Your task to perform on an android device: check storage Image 0: 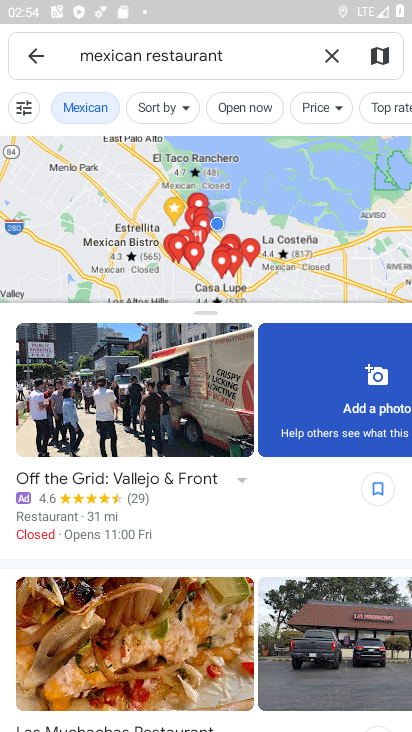
Step 0: press home button
Your task to perform on an android device: check storage Image 1: 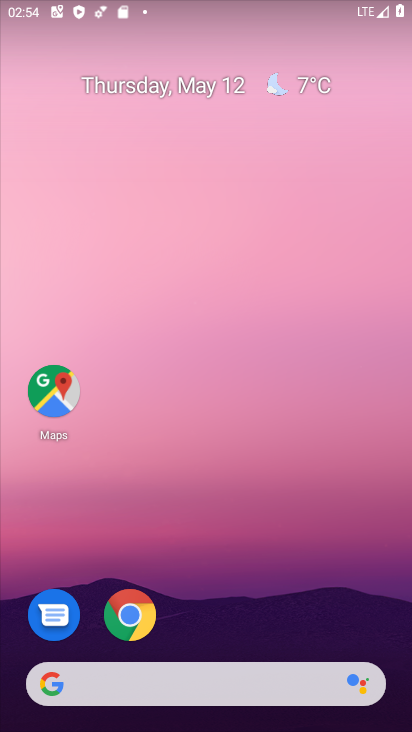
Step 1: drag from (179, 671) to (153, 203)
Your task to perform on an android device: check storage Image 2: 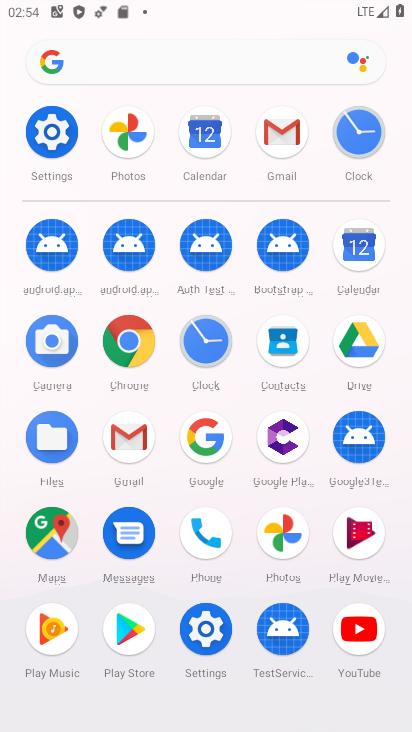
Step 2: click (207, 625)
Your task to perform on an android device: check storage Image 3: 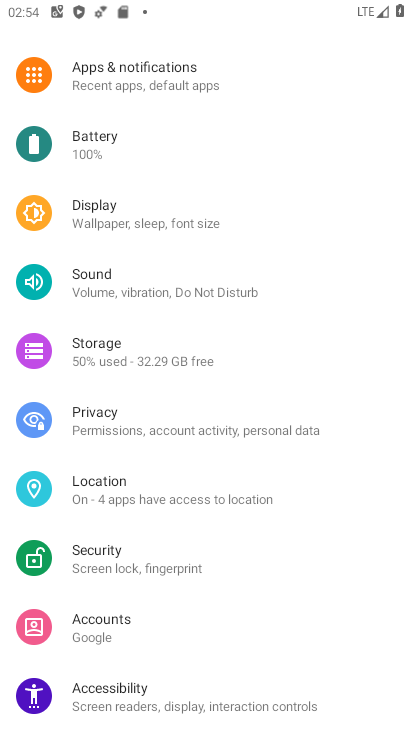
Step 3: click (106, 356)
Your task to perform on an android device: check storage Image 4: 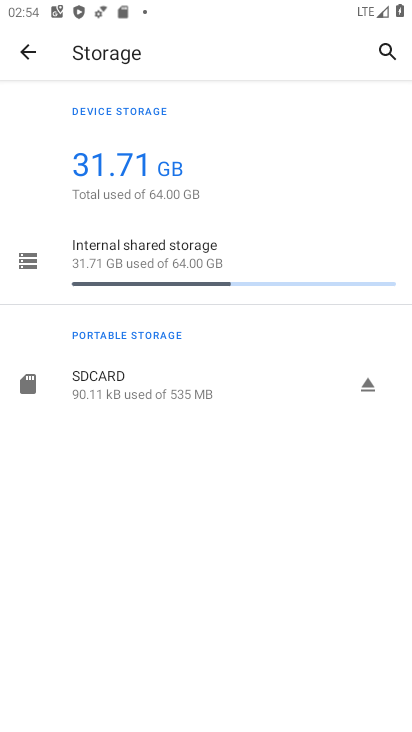
Step 4: task complete